Your task to perform on an android device: turn off javascript in the chrome app Image 0: 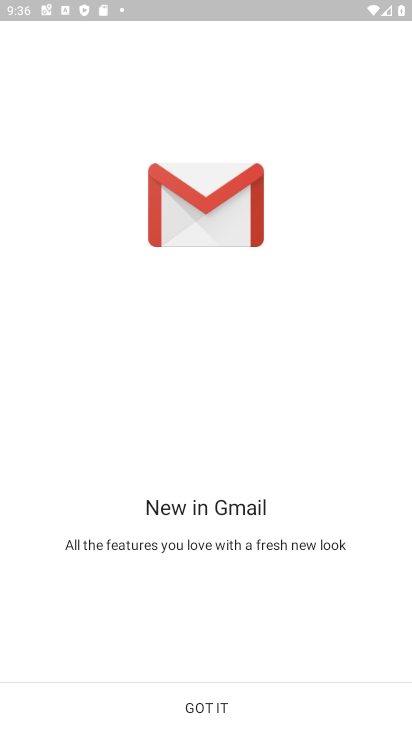
Step 0: click (212, 717)
Your task to perform on an android device: turn off javascript in the chrome app Image 1: 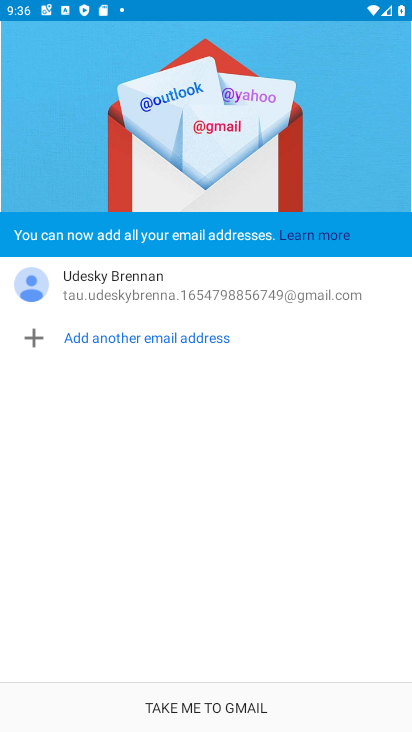
Step 1: press home button
Your task to perform on an android device: turn off javascript in the chrome app Image 2: 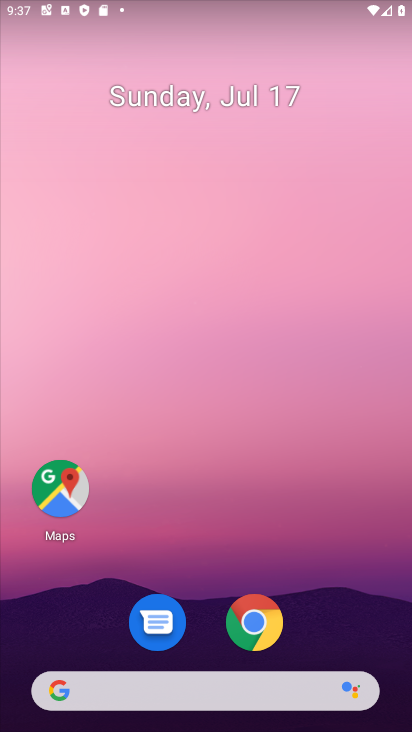
Step 2: click (257, 628)
Your task to perform on an android device: turn off javascript in the chrome app Image 3: 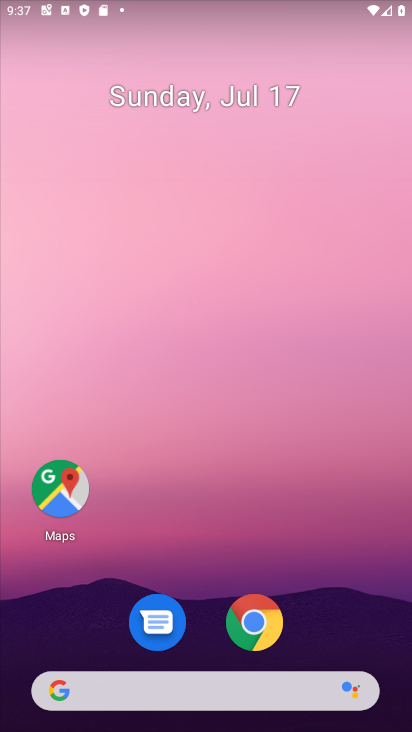
Step 3: click (257, 628)
Your task to perform on an android device: turn off javascript in the chrome app Image 4: 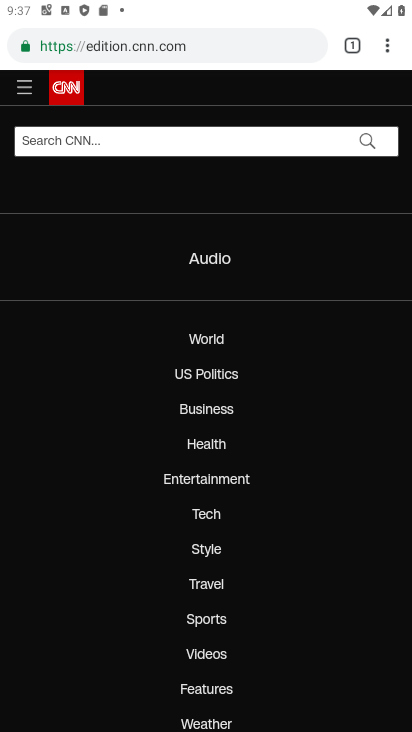
Step 4: click (391, 47)
Your task to perform on an android device: turn off javascript in the chrome app Image 5: 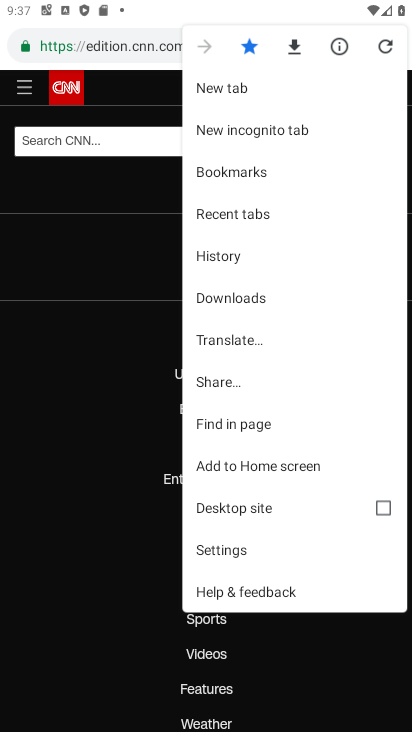
Step 5: click (232, 547)
Your task to perform on an android device: turn off javascript in the chrome app Image 6: 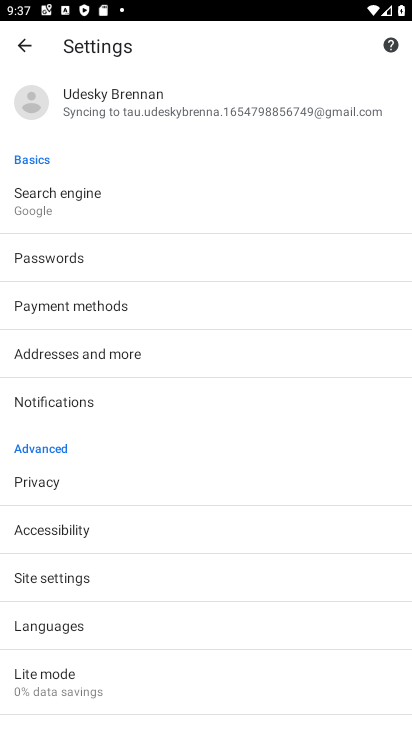
Step 6: click (122, 575)
Your task to perform on an android device: turn off javascript in the chrome app Image 7: 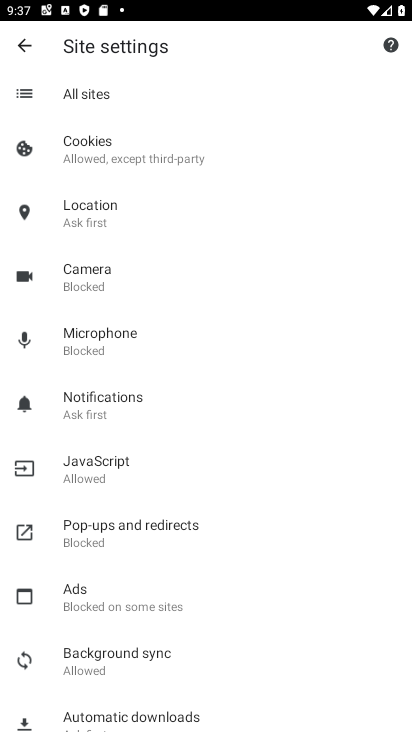
Step 7: click (133, 466)
Your task to perform on an android device: turn off javascript in the chrome app Image 8: 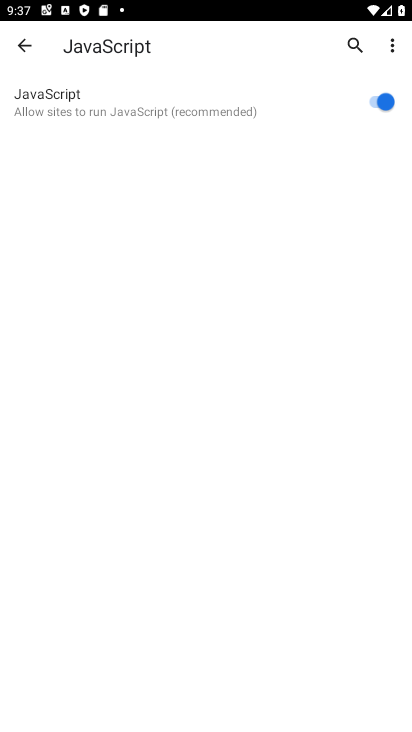
Step 8: click (389, 100)
Your task to perform on an android device: turn off javascript in the chrome app Image 9: 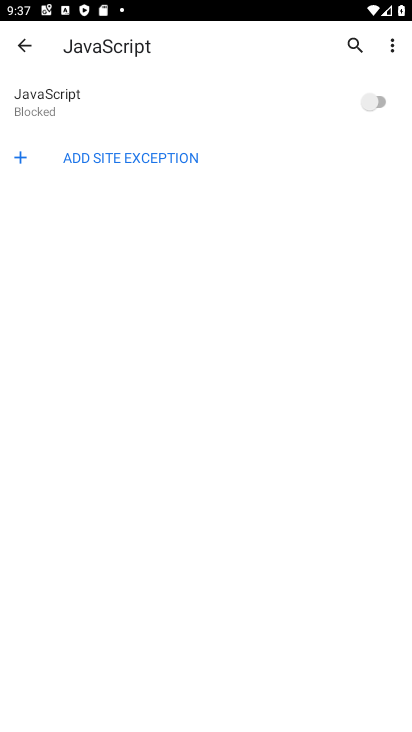
Step 9: task complete